Your task to perform on an android device: Open calendar and show me the second week of next month Image 0: 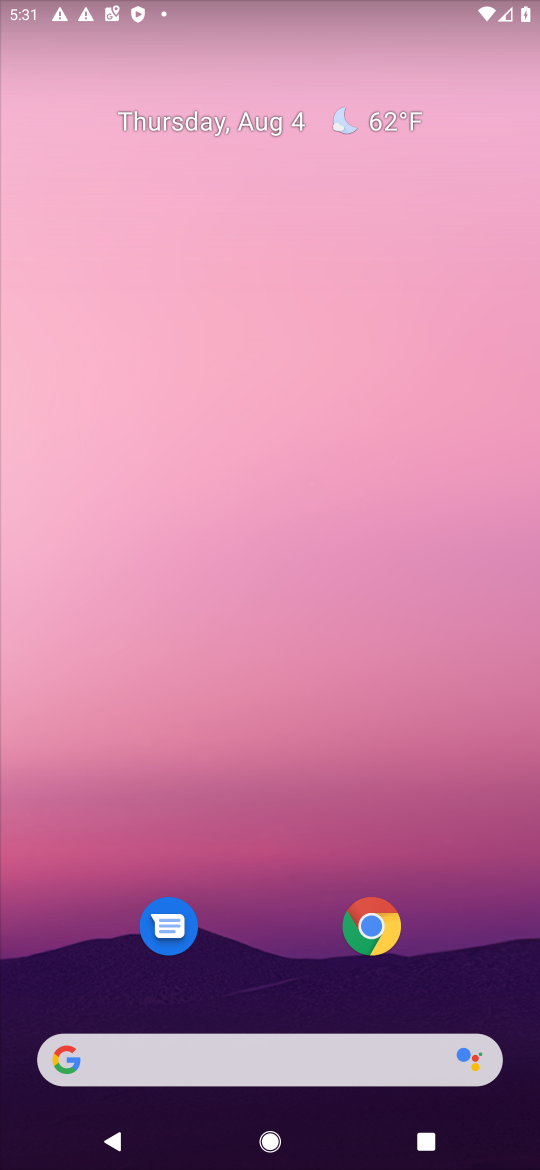
Step 0: drag from (298, 1027) to (337, 317)
Your task to perform on an android device: Open calendar and show me the second week of next month Image 1: 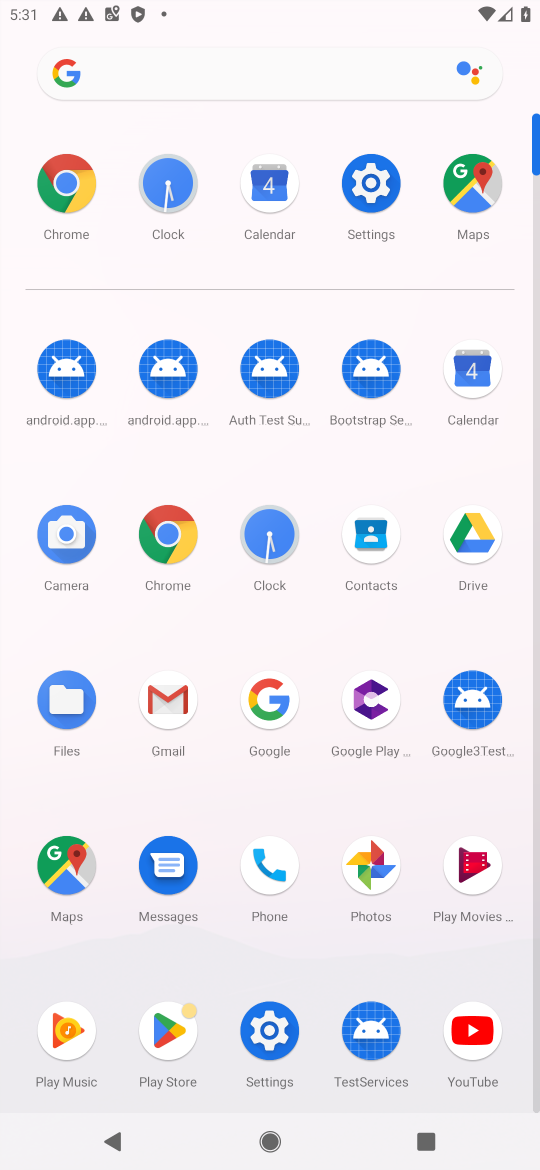
Step 1: click (479, 373)
Your task to perform on an android device: Open calendar and show me the second week of next month Image 2: 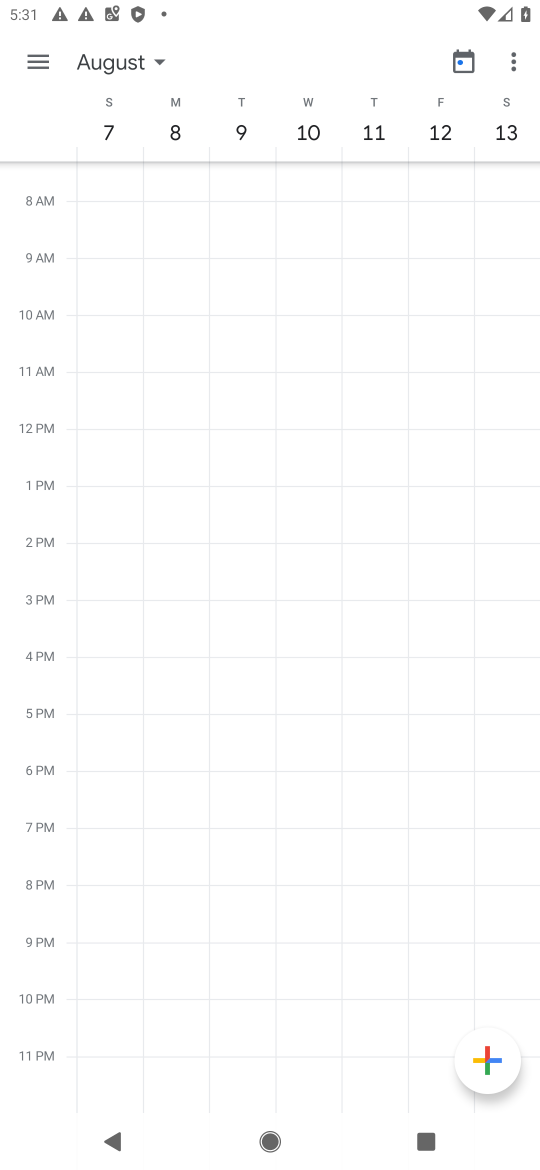
Step 2: click (159, 61)
Your task to perform on an android device: Open calendar and show me the second week of next month Image 3: 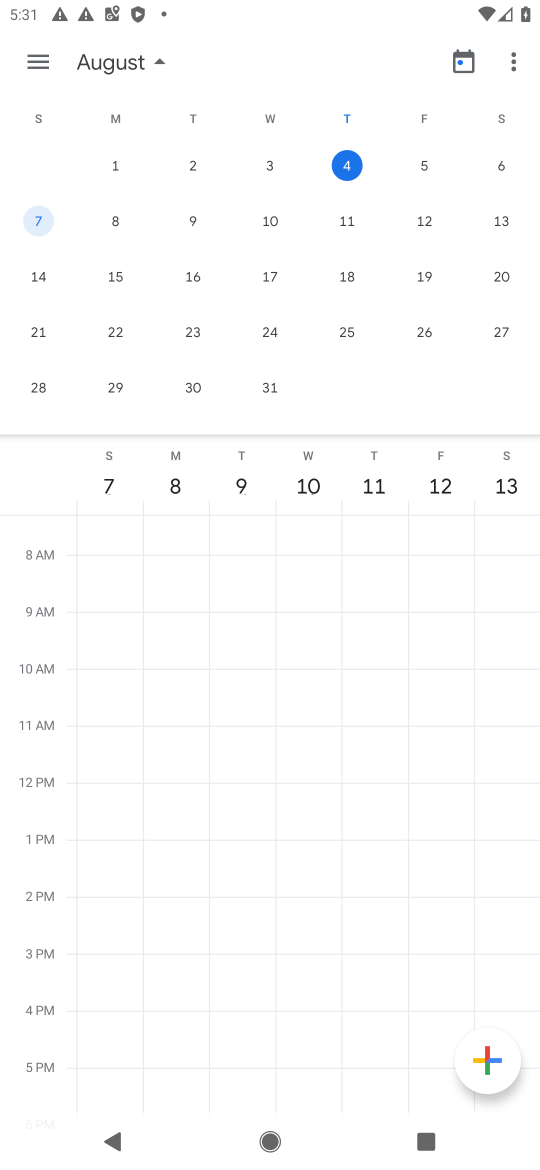
Step 3: drag from (438, 277) to (96, 230)
Your task to perform on an android device: Open calendar and show me the second week of next month Image 4: 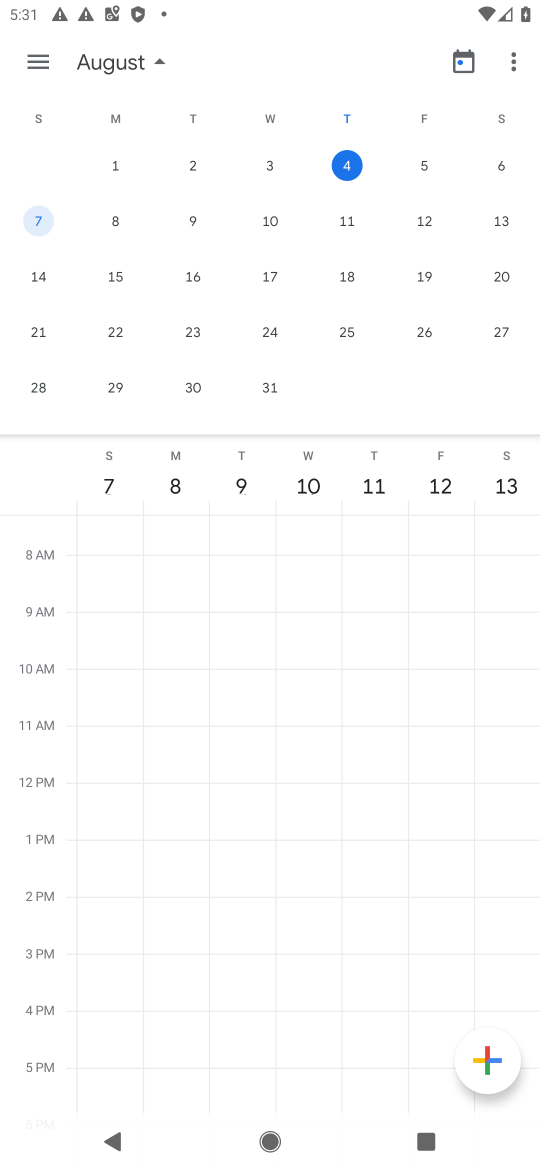
Step 4: drag from (494, 206) to (2, 193)
Your task to perform on an android device: Open calendar and show me the second week of next month Image 5: 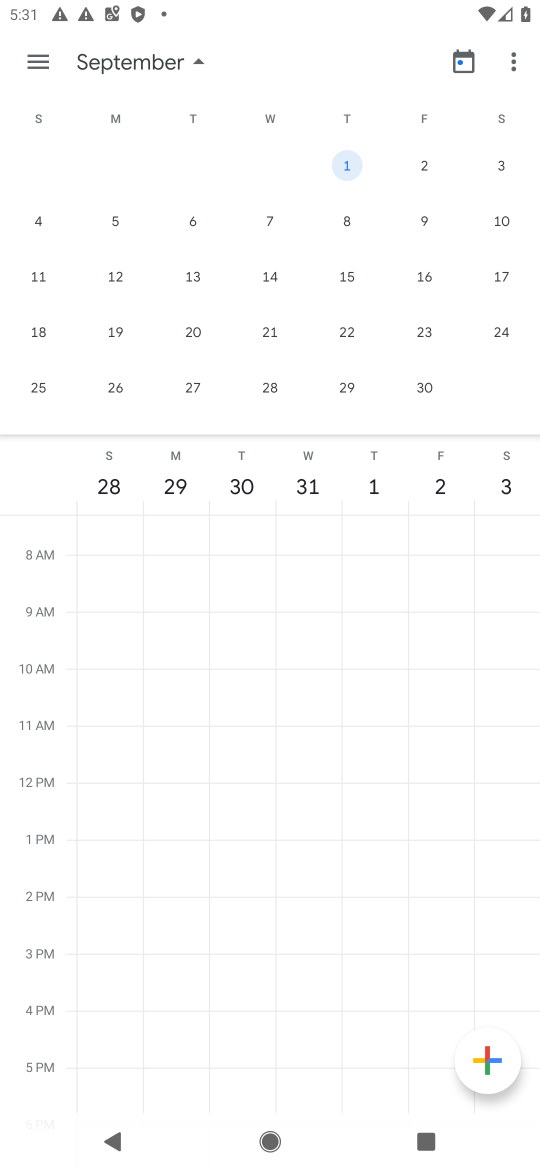
Step 5: click (38, 220)
Your task to perform on an android device: Open calendar and show me the second week of next month Image 6: 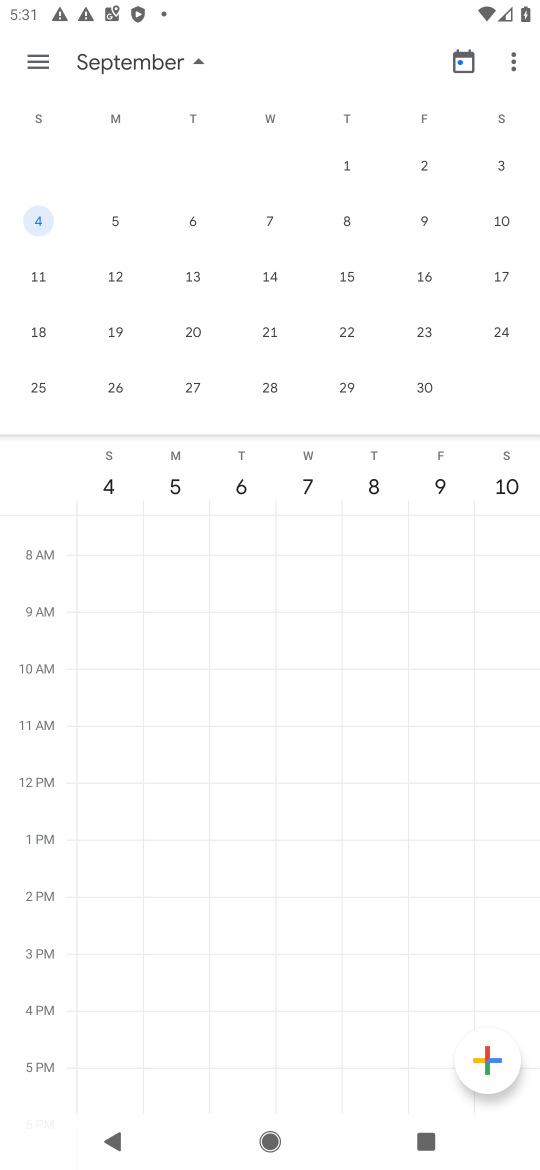
Step 6: click (129, 220)
Your task to perform on an android device: Open calendar and show me the second week of next month Image 7: 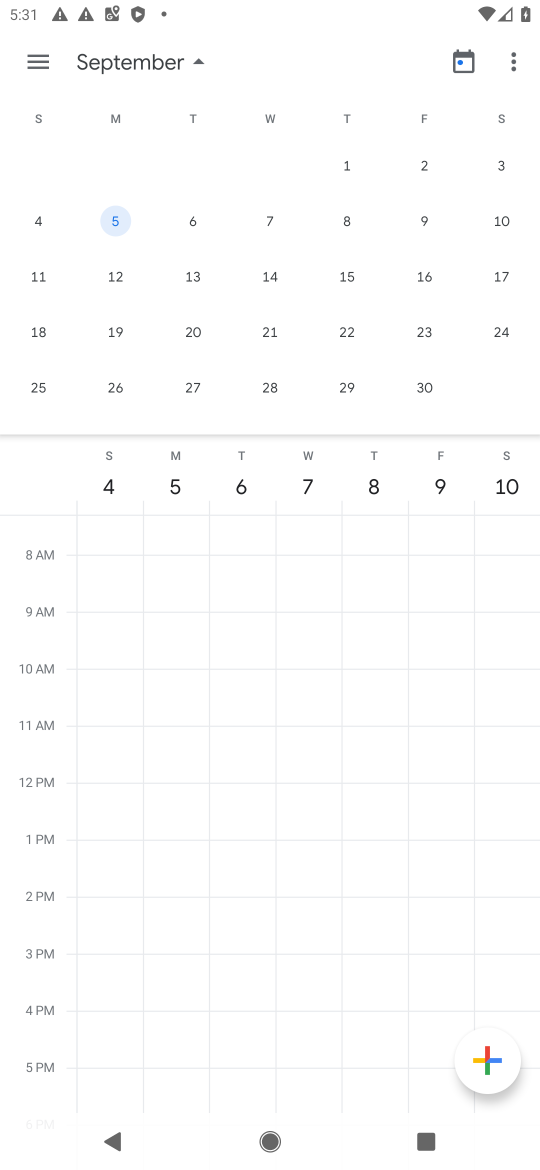
Step 7: click (202, 218)
Your task to perform on an android device: Open calendar and show me the second week of next month Image 8: 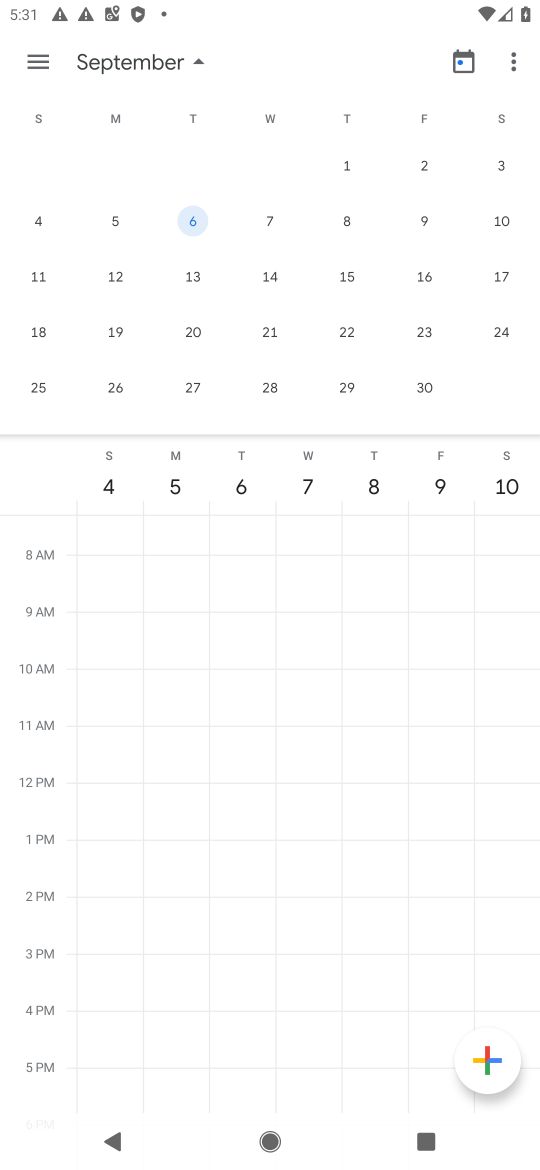
Step 8: click (277, 224)
Your task to perform on an android device: Open calendar and show me the second week of next month Image 9: 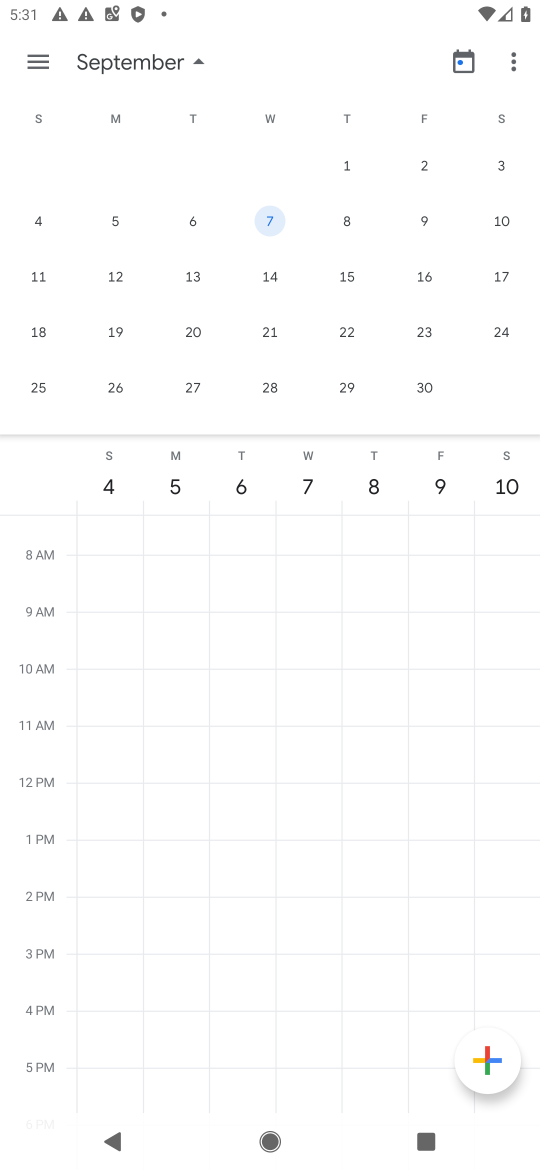
Step 9: click (342, 222)
Your task to perform on an android device: Open calendar and show me the second week of next month Image 10: 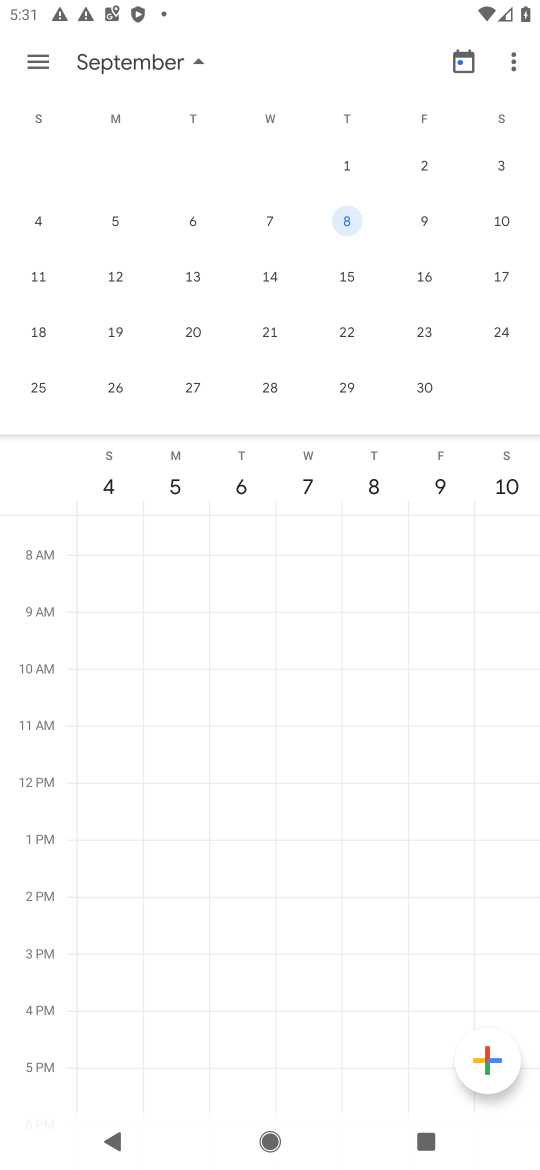
Step 10: click (417, 227)
Your task to perform on an android device: Open calendar and show me the second week of next month Image 11: 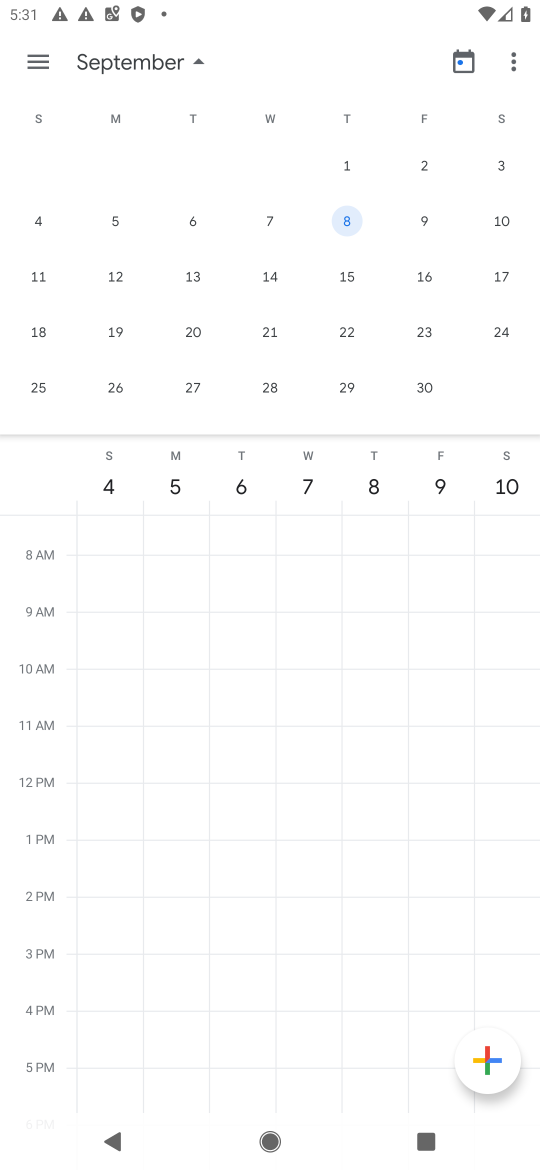
Step 11: click (500, 228)
Your task to perform on an android device: Open calendar and show me the second week of next month Image 12: 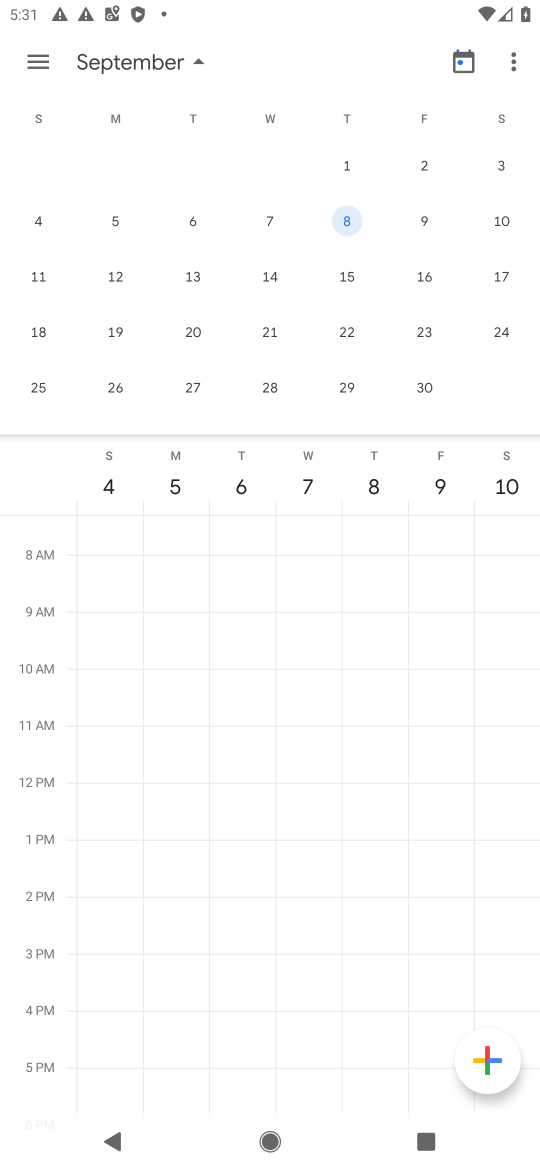
Step 12: click (429, 228)
Your task to perform on an android device: Open calendar and show me the second week of next month Image 13: 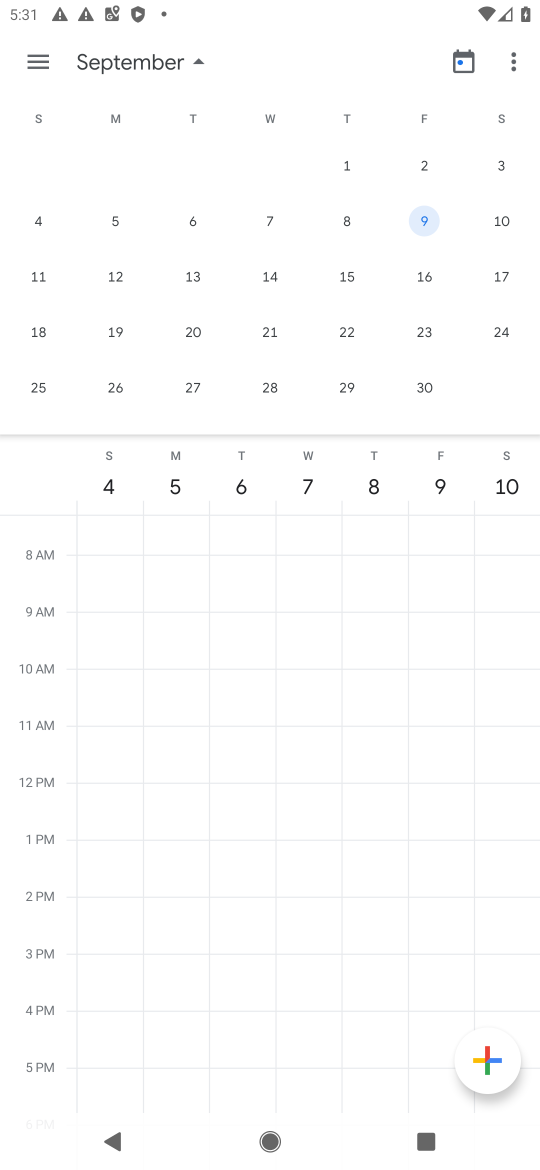
Step 13: click (489, 215)
Your task to perform on an android device: Open calendar and show me the second week of next month Image 14: 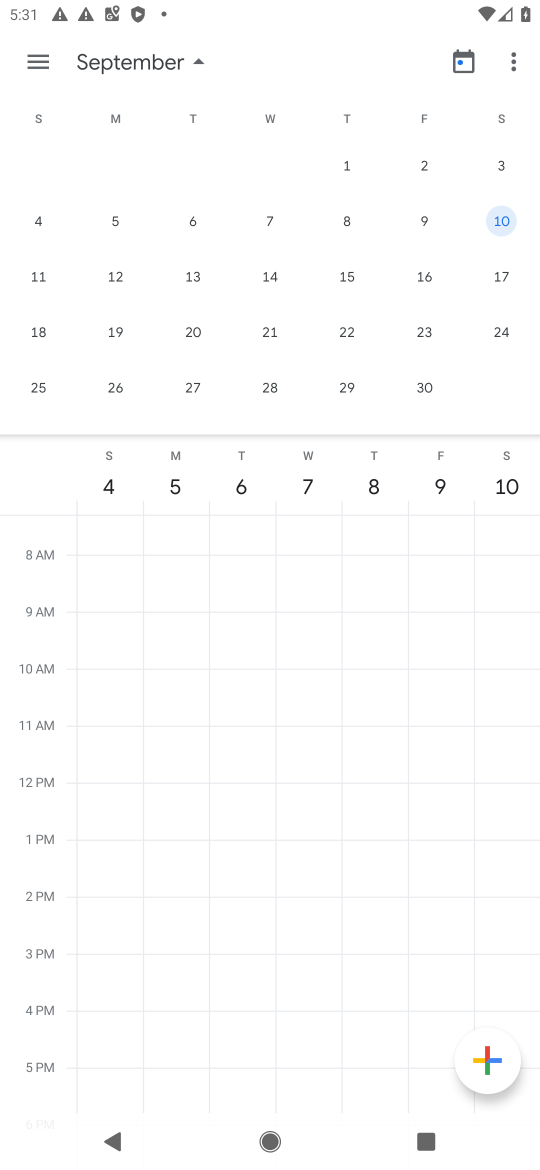
Step 14: task complete